Your task to perform on an android device: Open the map Image 0: 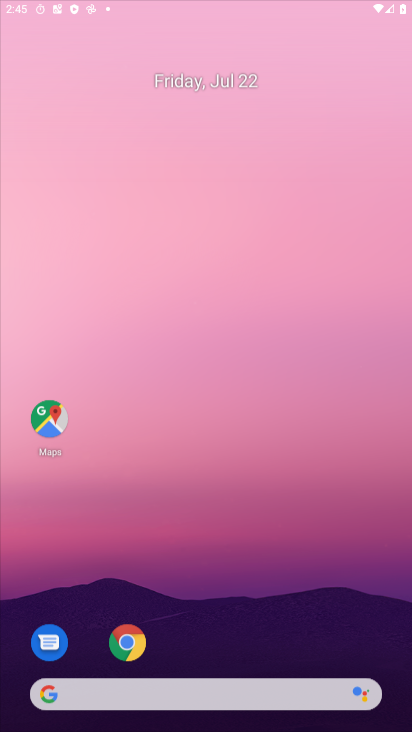
Step 0: press home button
Your task to perform on an android device: Open the map Image 1: 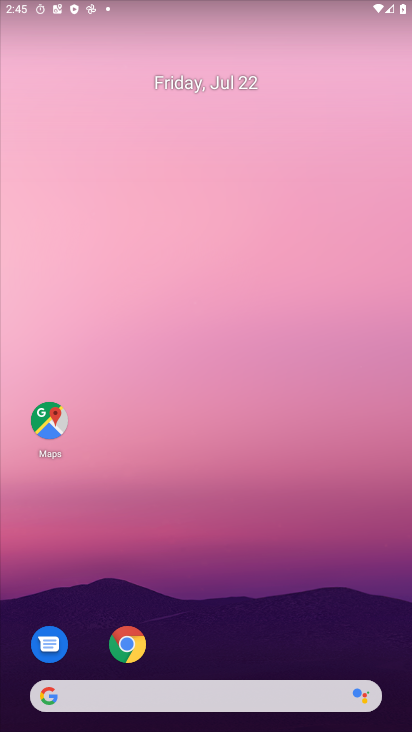
Step 1: drag from (261, 587) to (308, 276)
Your task to perform on an android device: Open the map Image 2: 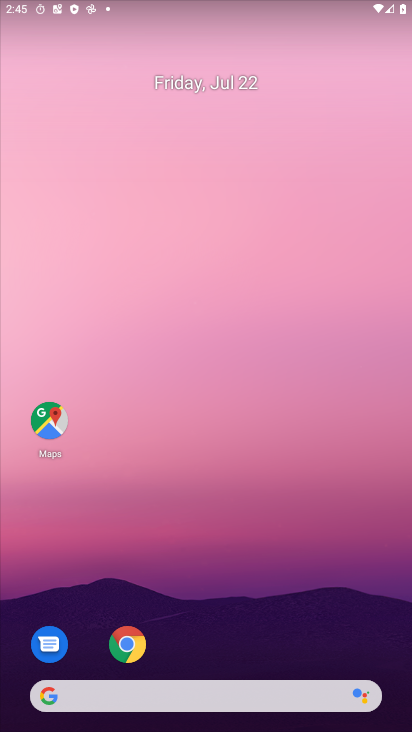
Step 2: drag from (245, 696) to (257, 214)
Your task to perform on an android device: Open the map Image 3: 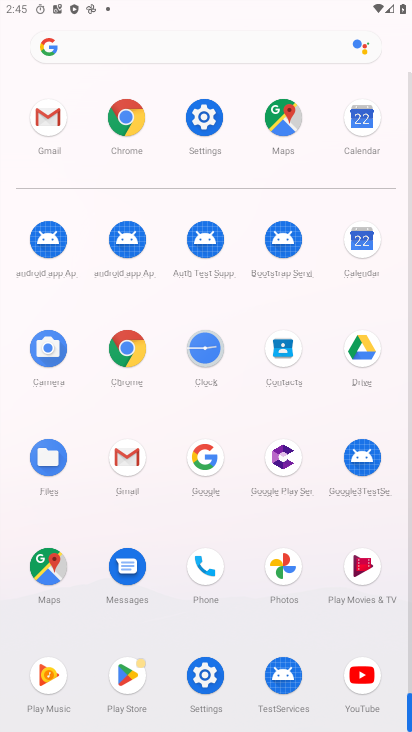
Step 3: click (52, 573)
Your task to perform on an android device: Open the map Image 4: 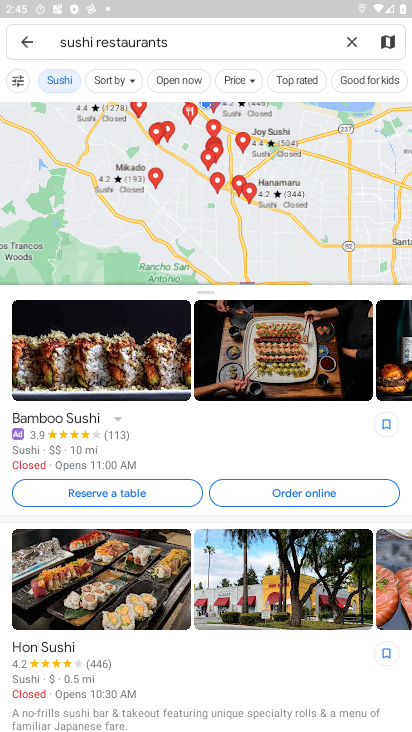
Step 4: task complete